Your task to perform on an android device: What is the recent news? Image 0: 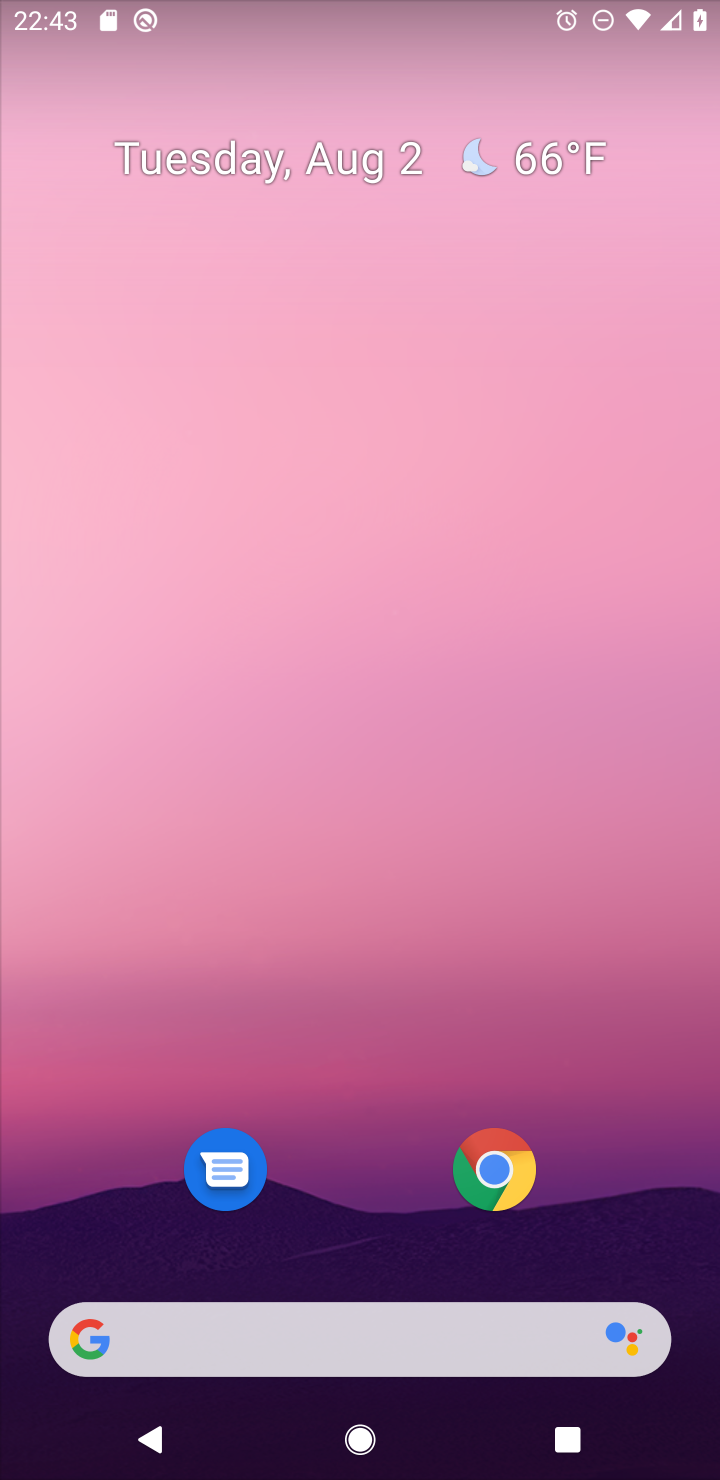
Step 0: drag from (0, 491) to (685, 1466)
Your task to perform on an android device: What is the recent news? Image 1: 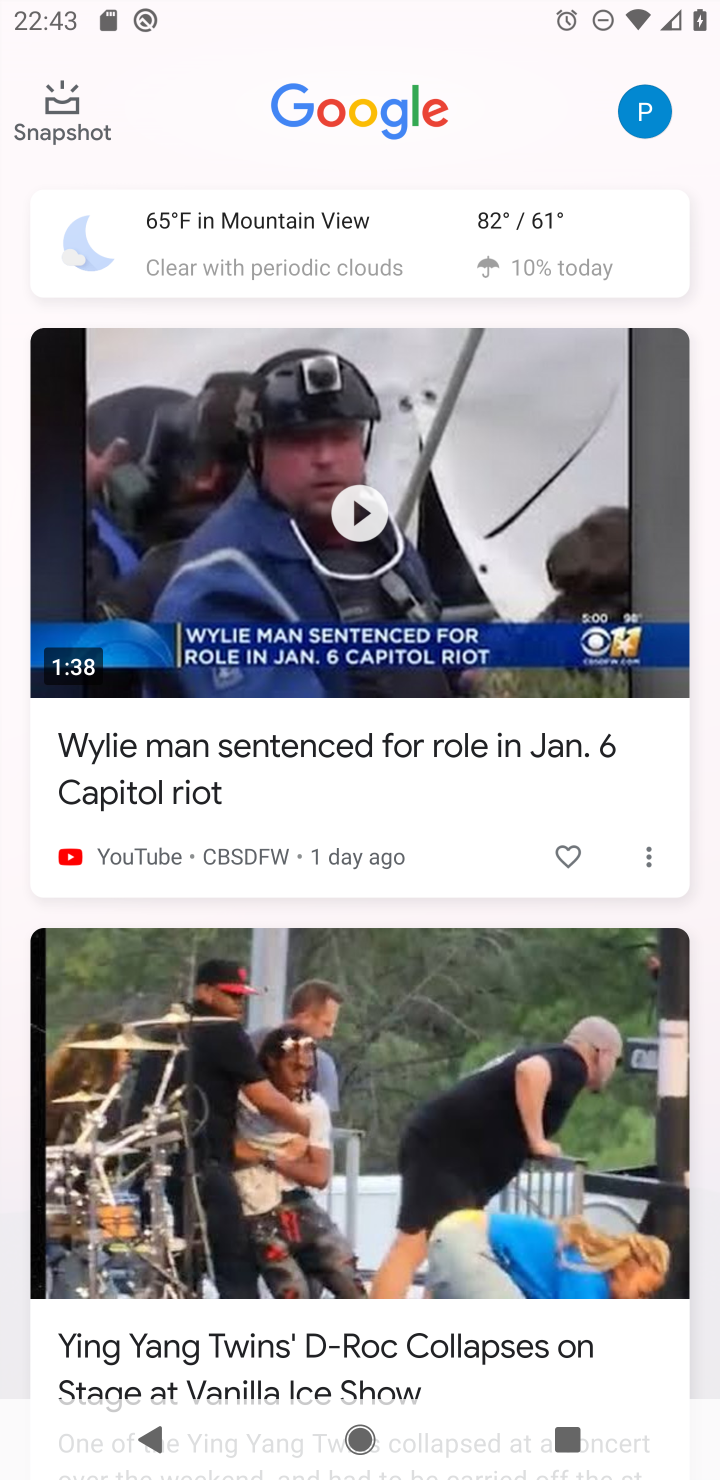
Step 1: task complete